Your task to perform on an android device: Go to calendar. Show me events next week Image 0: 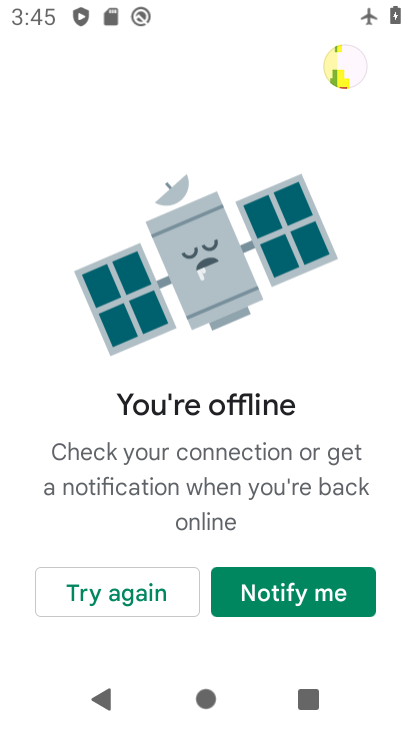
Step 0: press home button
Your task to perform on an android device: Go to calendar. Show me events next week Image 1: 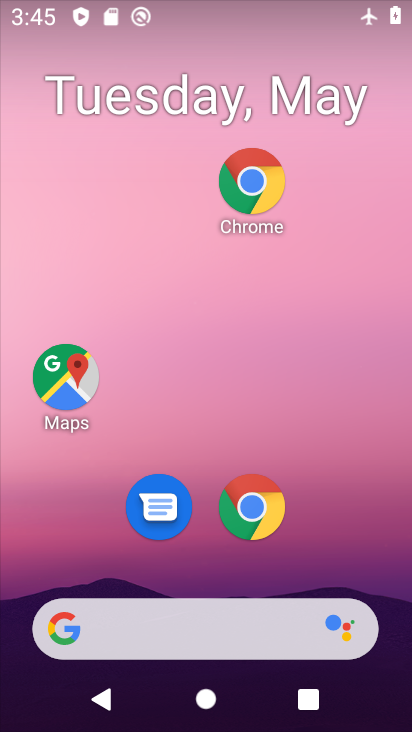
Step 1: drag from (363, 520) to (387, 110)
Your task to perform on an android device: Go to calendar. Show me events next week Image 2: 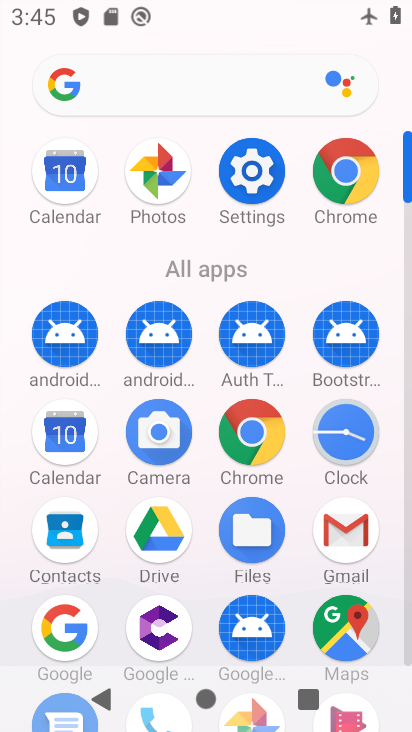
Step 2: click (56, 441)
Your task to perform on an android device: Go to calendar. Show me events next week Image 3: 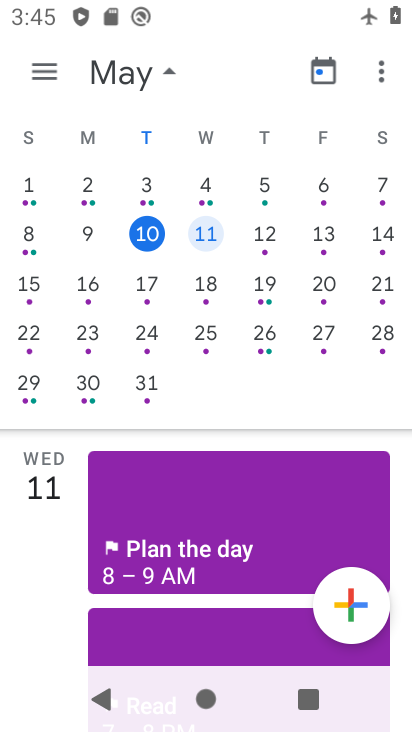
Step 3: click (150, 288)
Your task to perform on an android device: Go to calendar. Show me events next week Image 4: 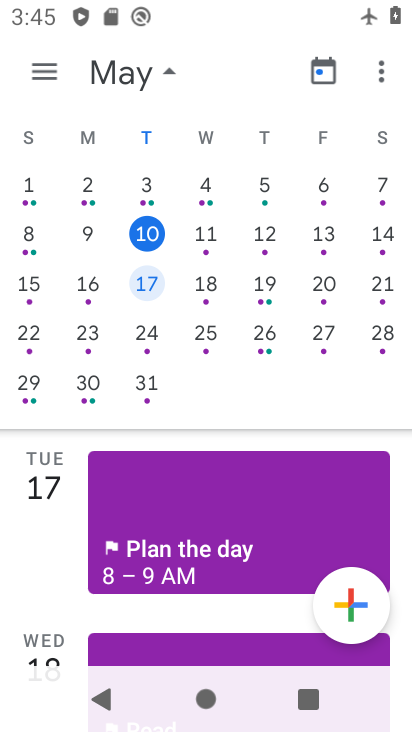
Step 4: task complete